Your task to perform on an android device: see creations saved in the google photos Image 0: 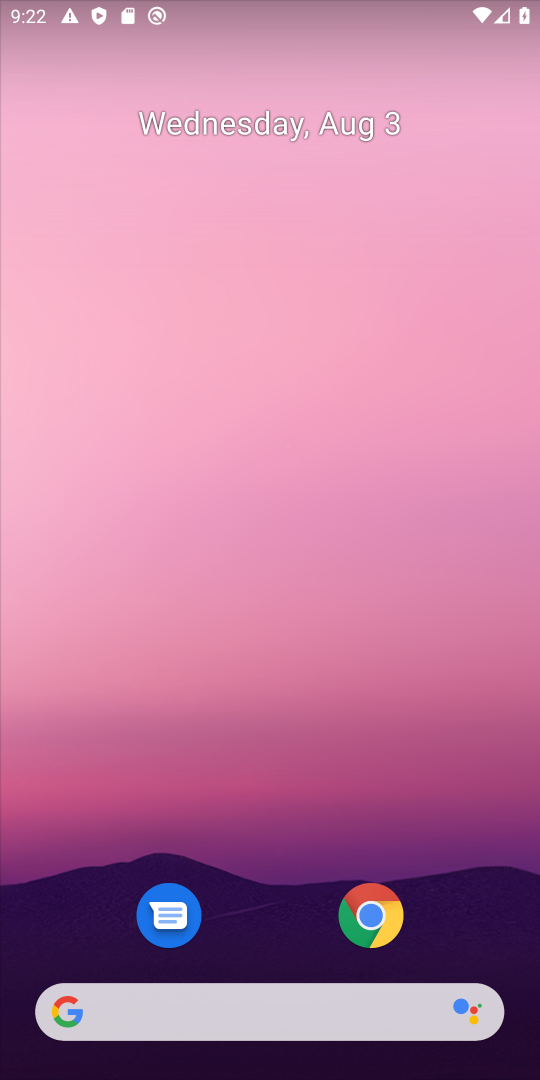
Step 0: drag from (272, 956) to (272, 347)
Your task to perform on an android device: see creations saved in the google photos Image 1: 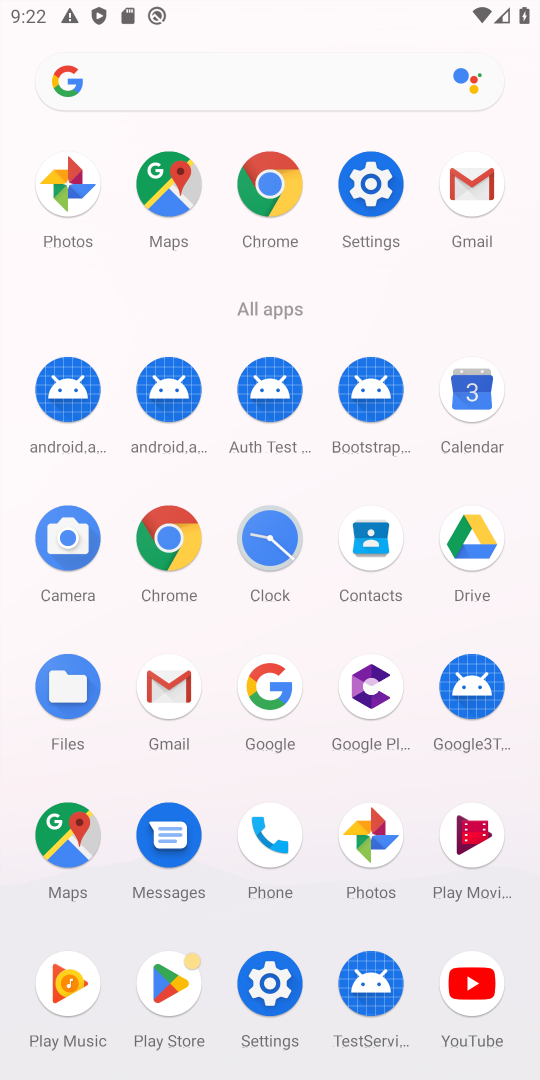
Step 1: click (362, 829)
Your task to perform on an android device: see creations saved in the google photos Image 2: 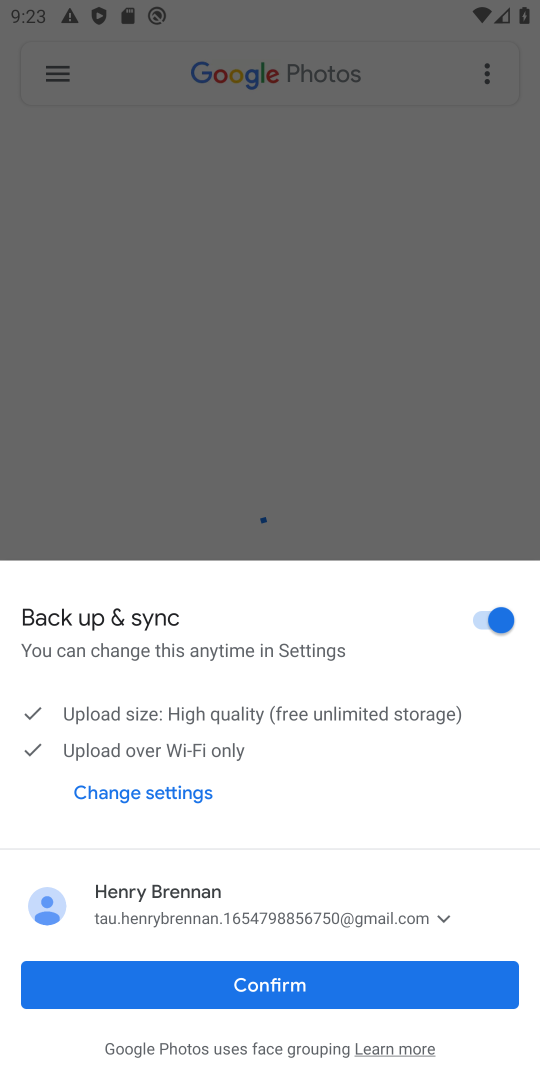
Step 2: click (283, 981)
Your task to perform on an android device: see creations saved in the google photos Image 3: 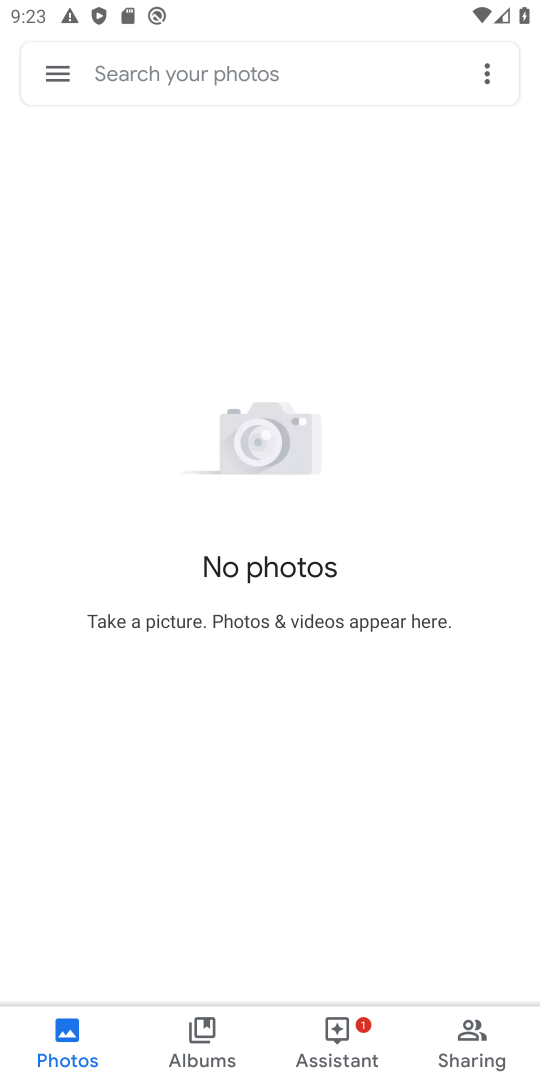
Step 3: click (471, 1023)
Your task to perform on an android device: see creations saved in the google photos Image 4: 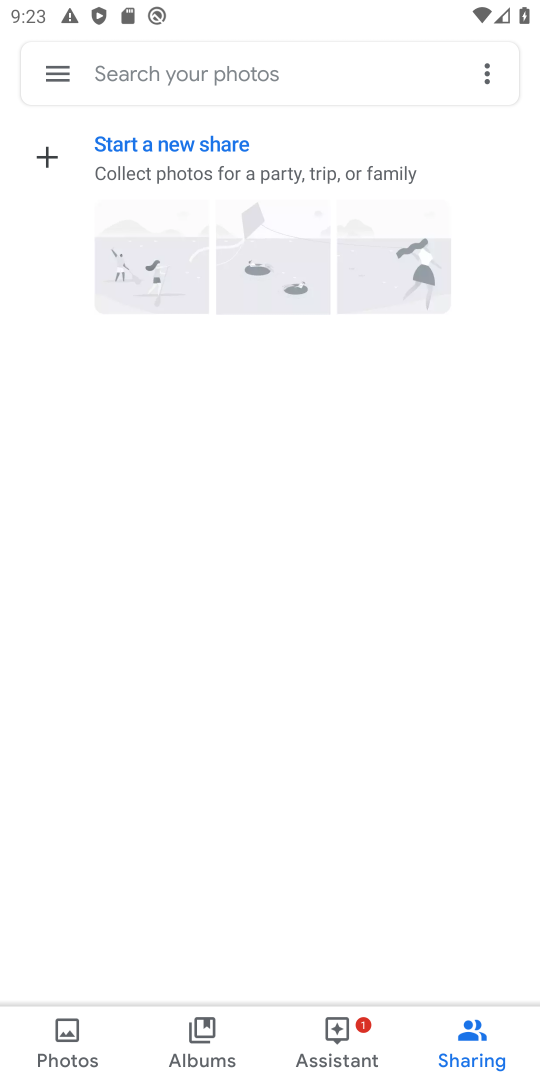
Step 4: click (221, 1015)
Your task to perform on an android device: see creations saved in the google photos Image 5: 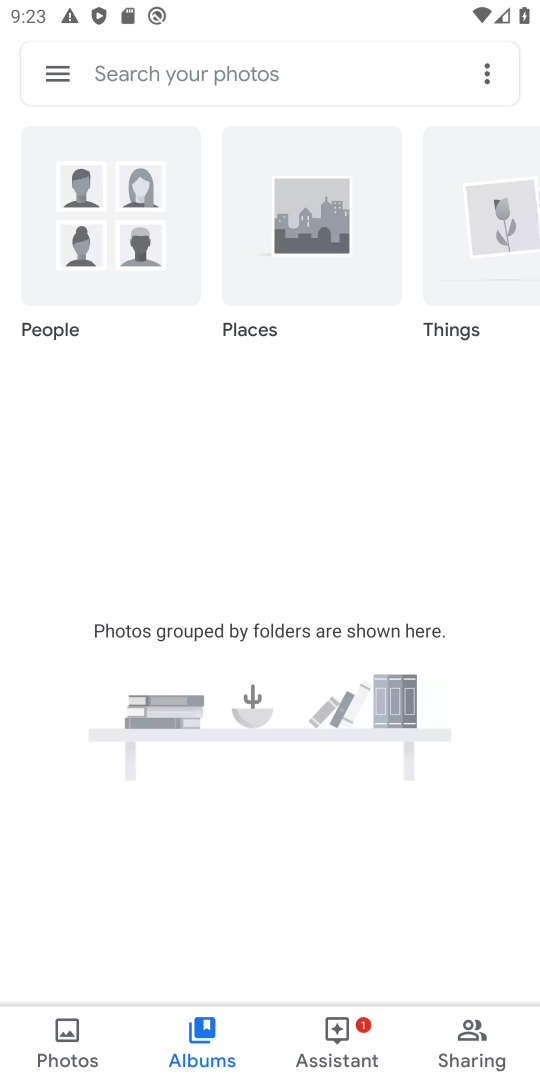
Step 5: task complete